Your task to perform on an android device: Go to location settings Image 0: 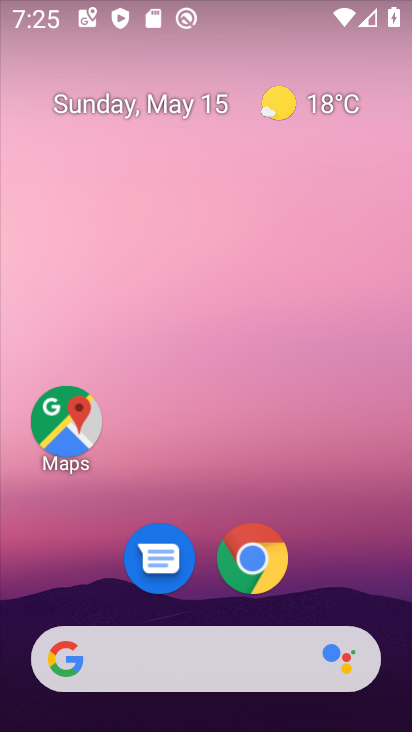
Step 0: drag from (288, 465) to (194, 37)
Your task to perform on an android device: Go to location settings Image 1: 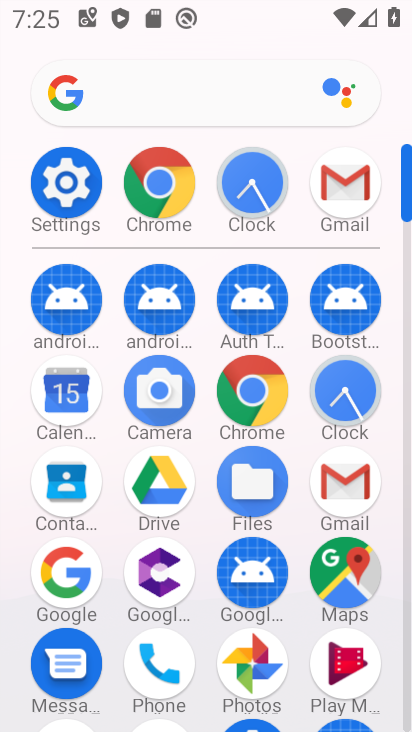
Step 1: click (66, 186)
Your task to perform on an android device: Go to location settings Image 2: 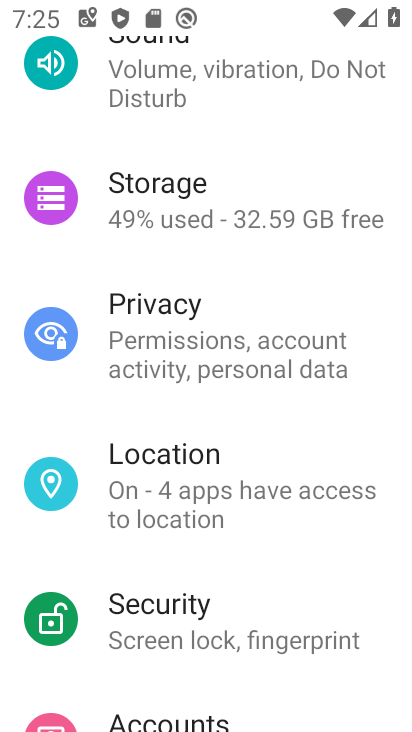
Step 2: click (192, 453)
Your task to perform on an android device: Go to location settings Image 3: 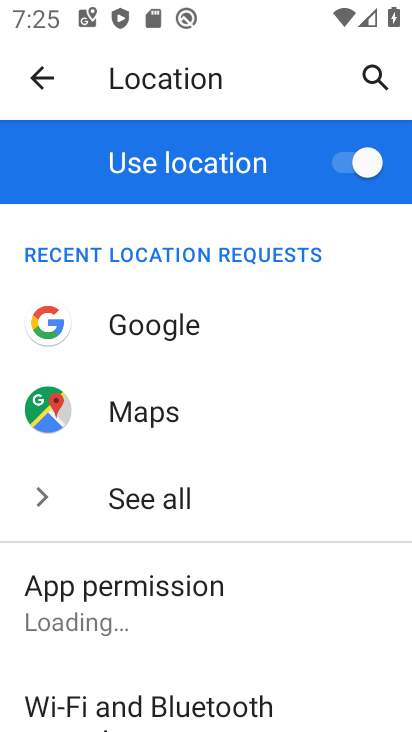
Step 3: task complete